Your task to perform on an android device: add a contact in the contacts app Image 0: 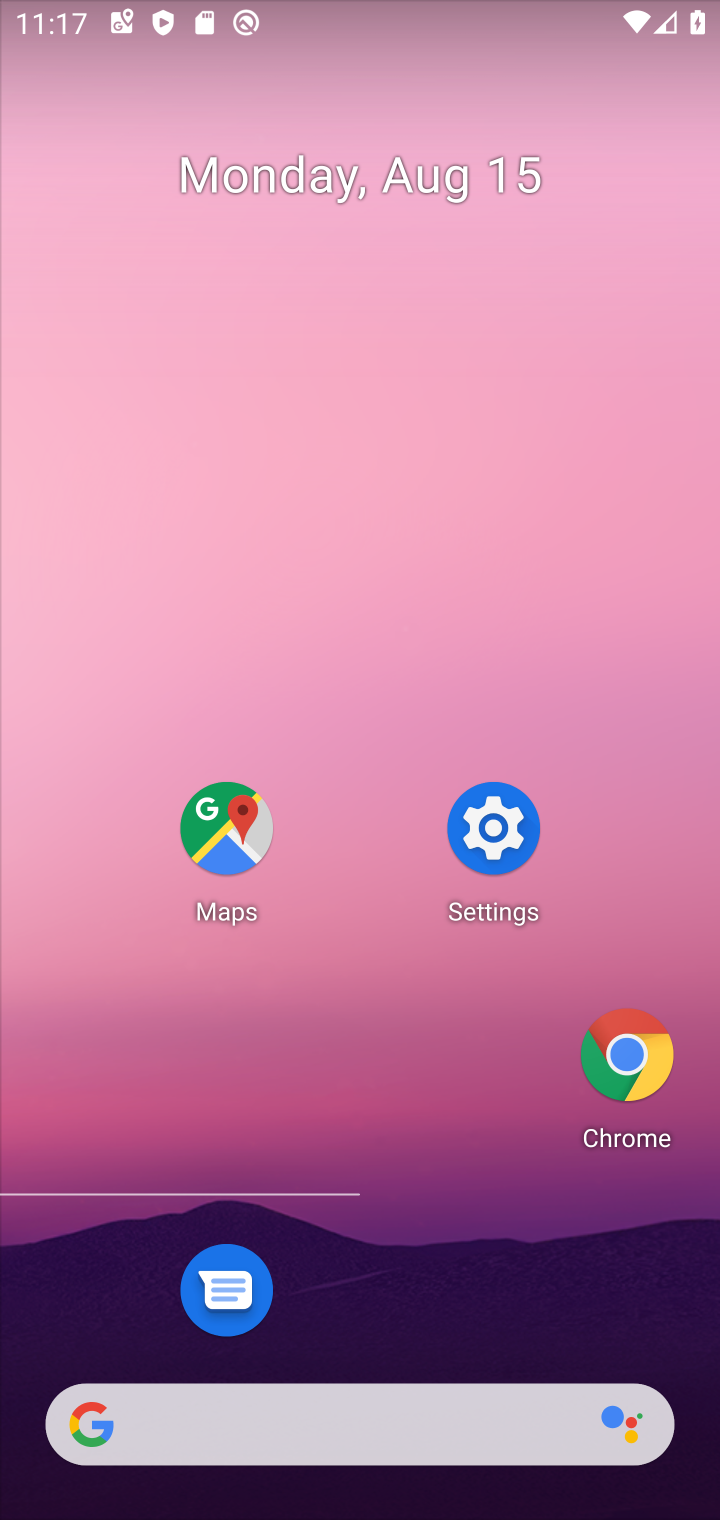
Step 0: drag from (365, 1398) to (467, 286)
Your task to perform on an android device: add a contact in the contacts app Image 1: 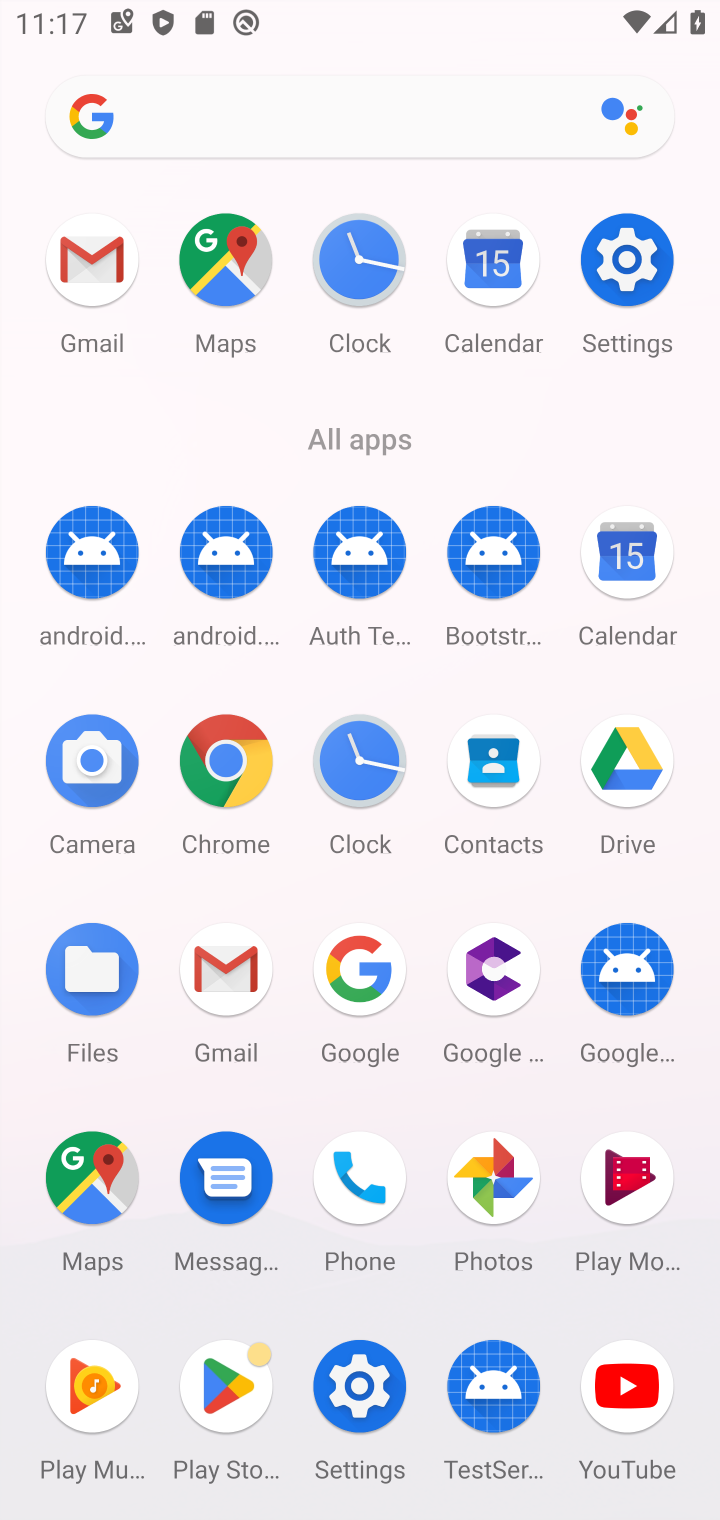
Step 1: click (487, 779)
Your task to perform on an android device: add a contact in the contacts app Image 2: 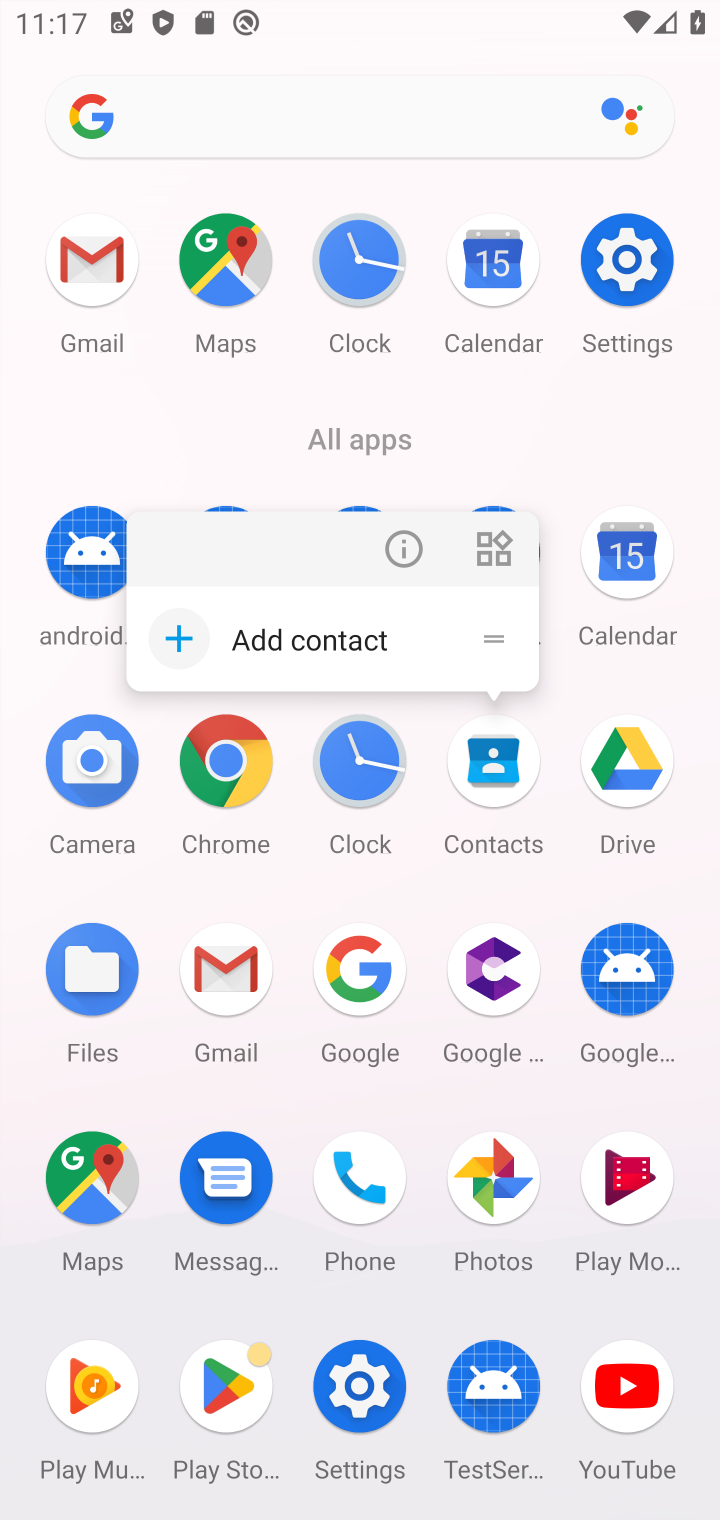
Step 2: click (487, 784)
Your task to perform on an android device: add a contact in the contacts app Image 3: 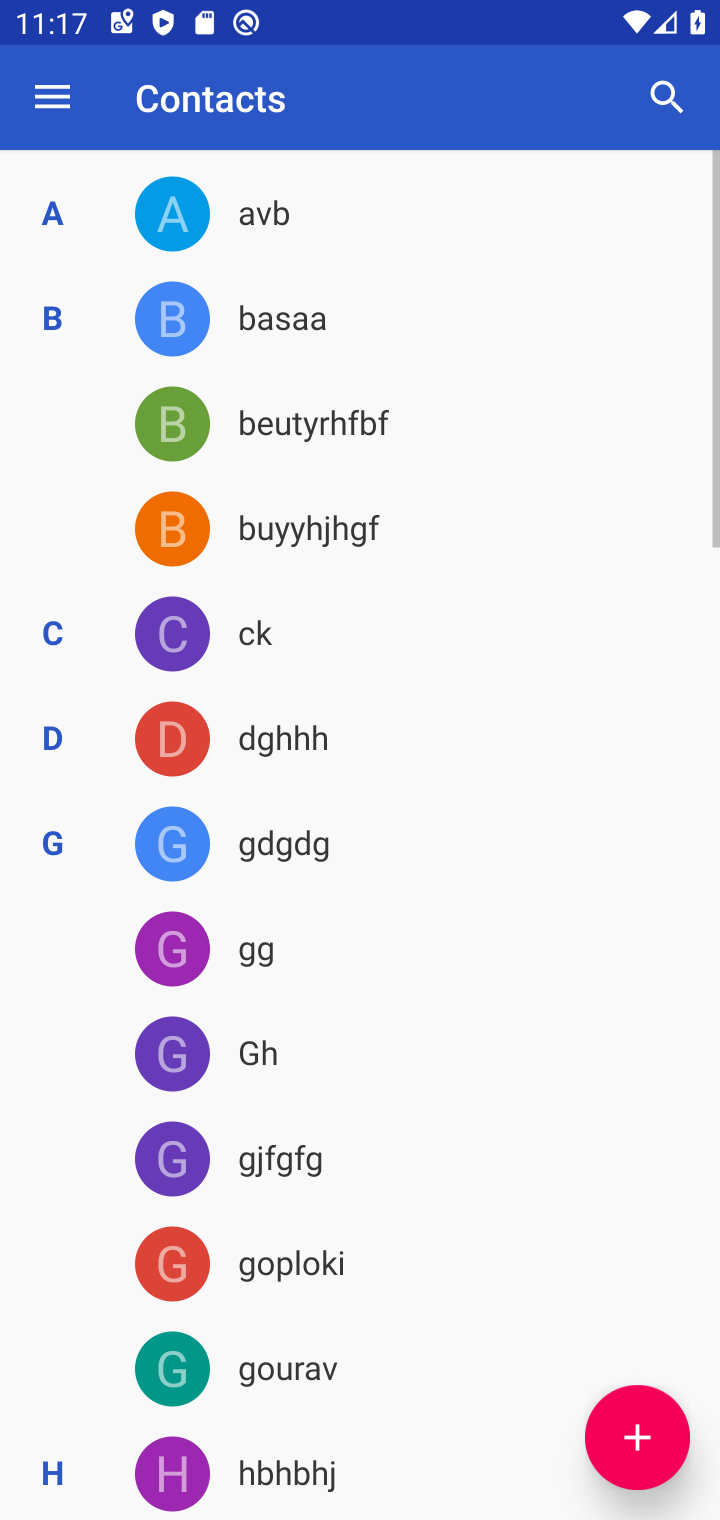
Step 3: click (651, 1420)
Your task to perform on an android device: add a contact in the contacts app Image 4: 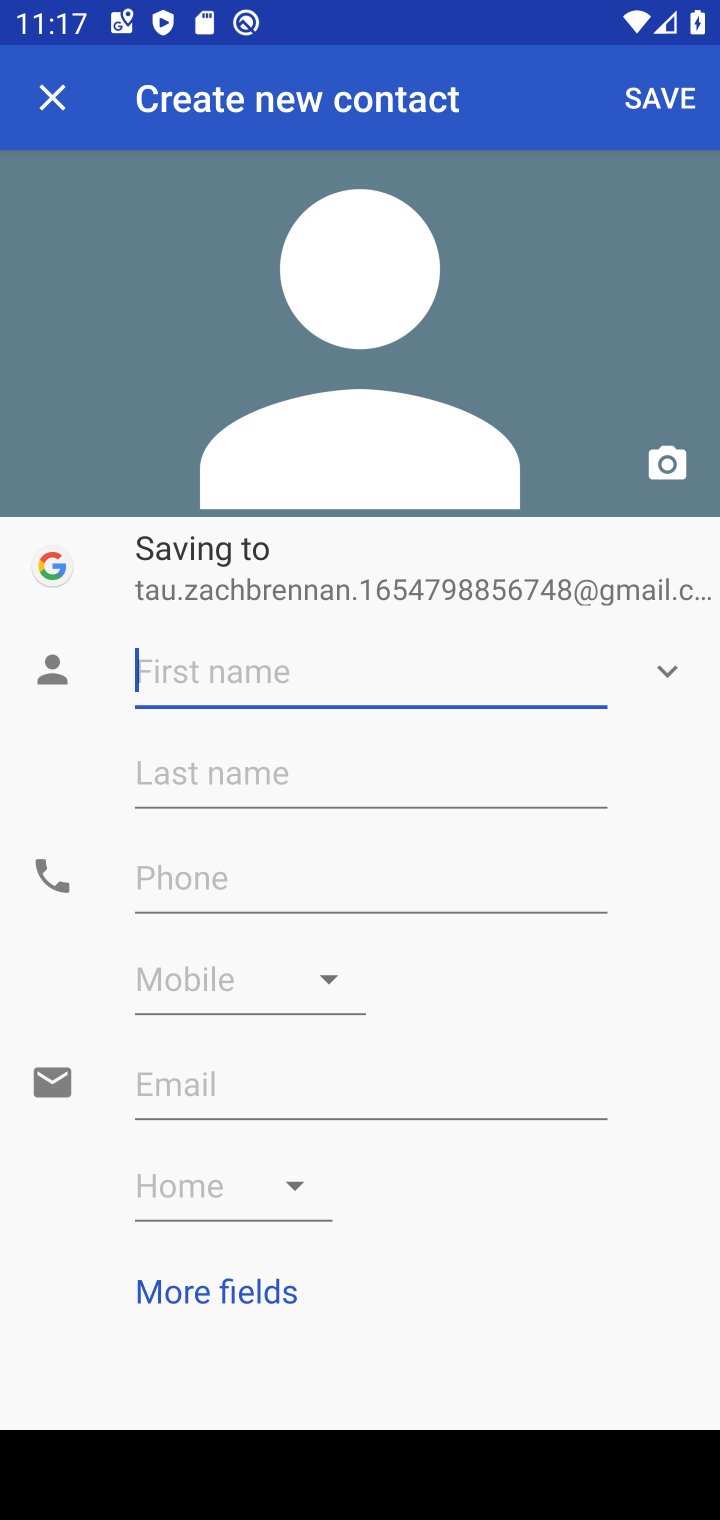
Step 4: type "wsggtyhjj"
Your task to perform on an android device: add a contact in the contacts app Image 5: 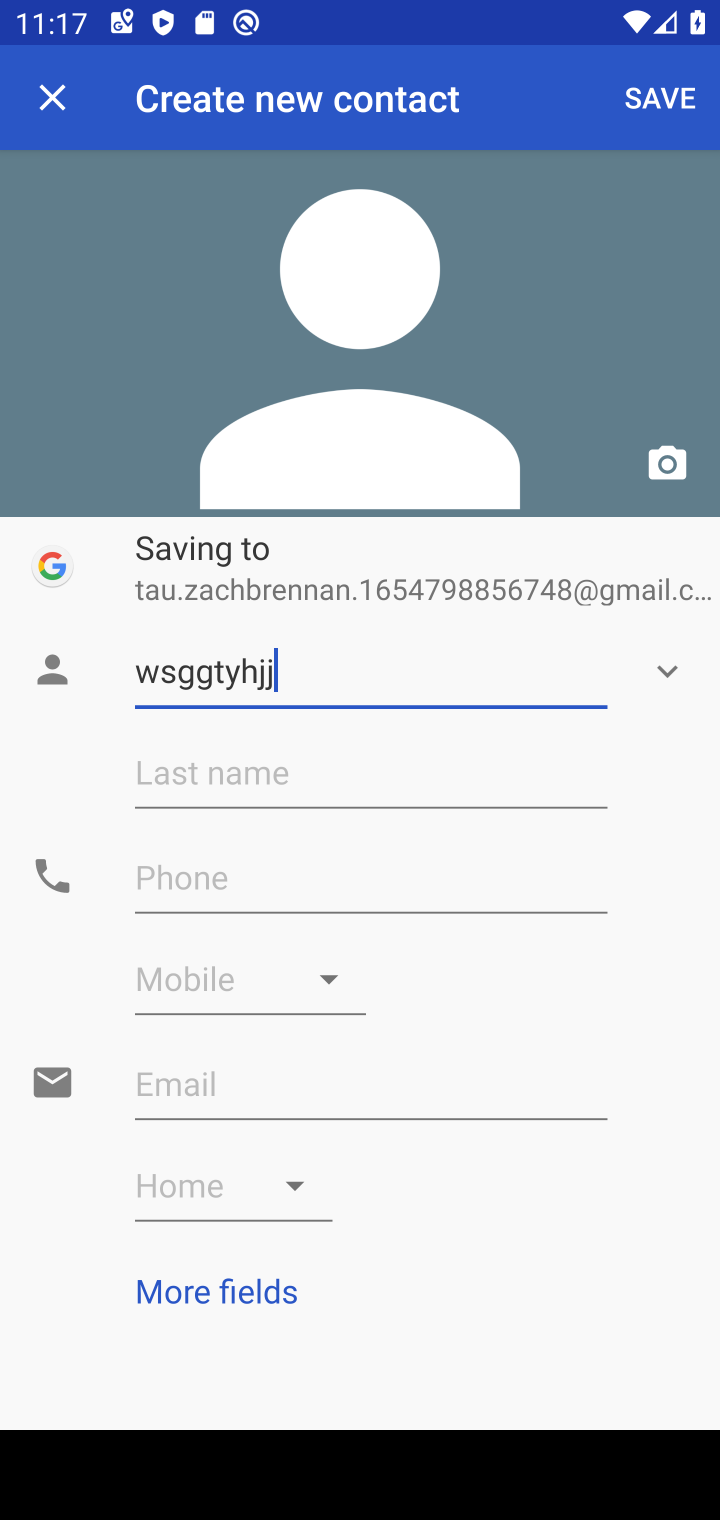
Step 5: click (248, 853)
Your task to perform on an android device: add a contact in the contacts app Image 6: 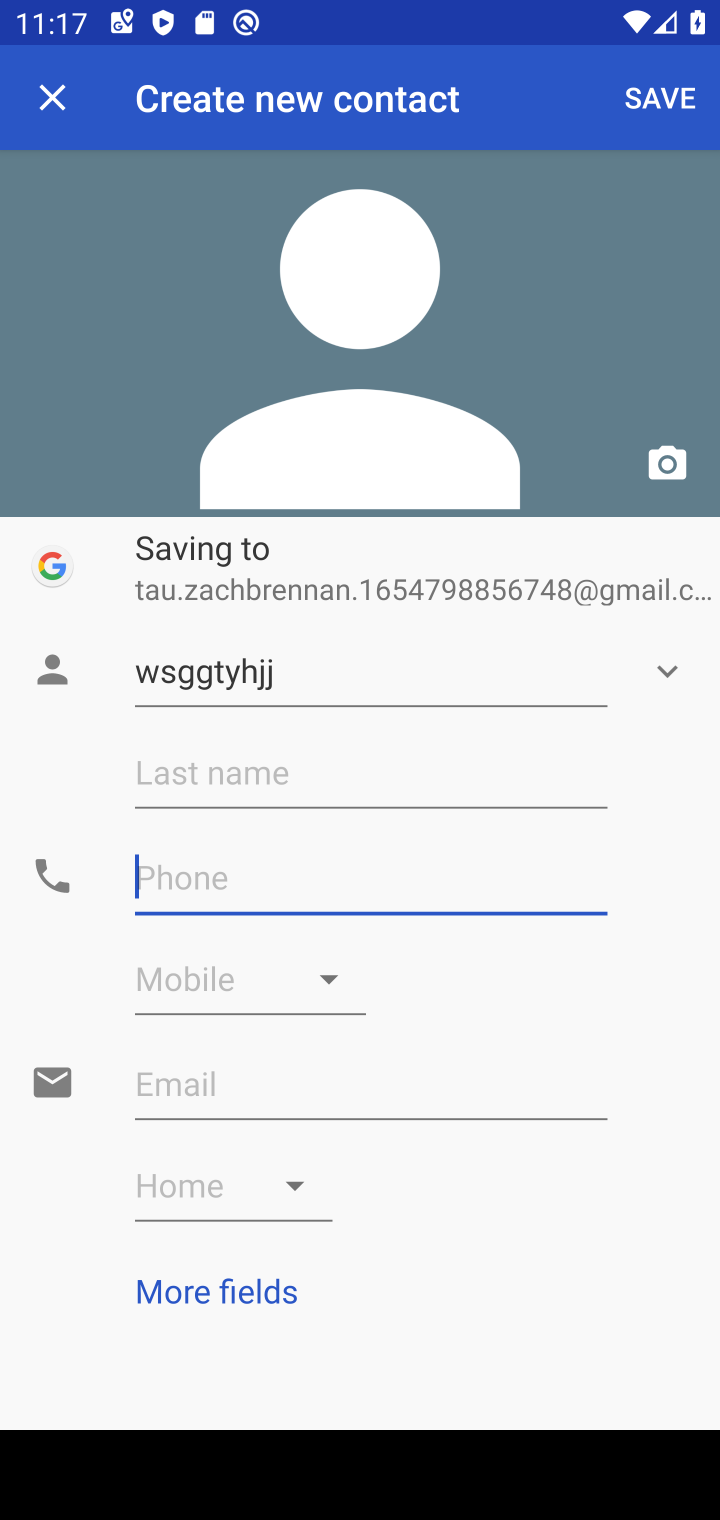
Step 6: type "6387655"
Your task to perform on an android device: add a contact in the contacts app Image 7: 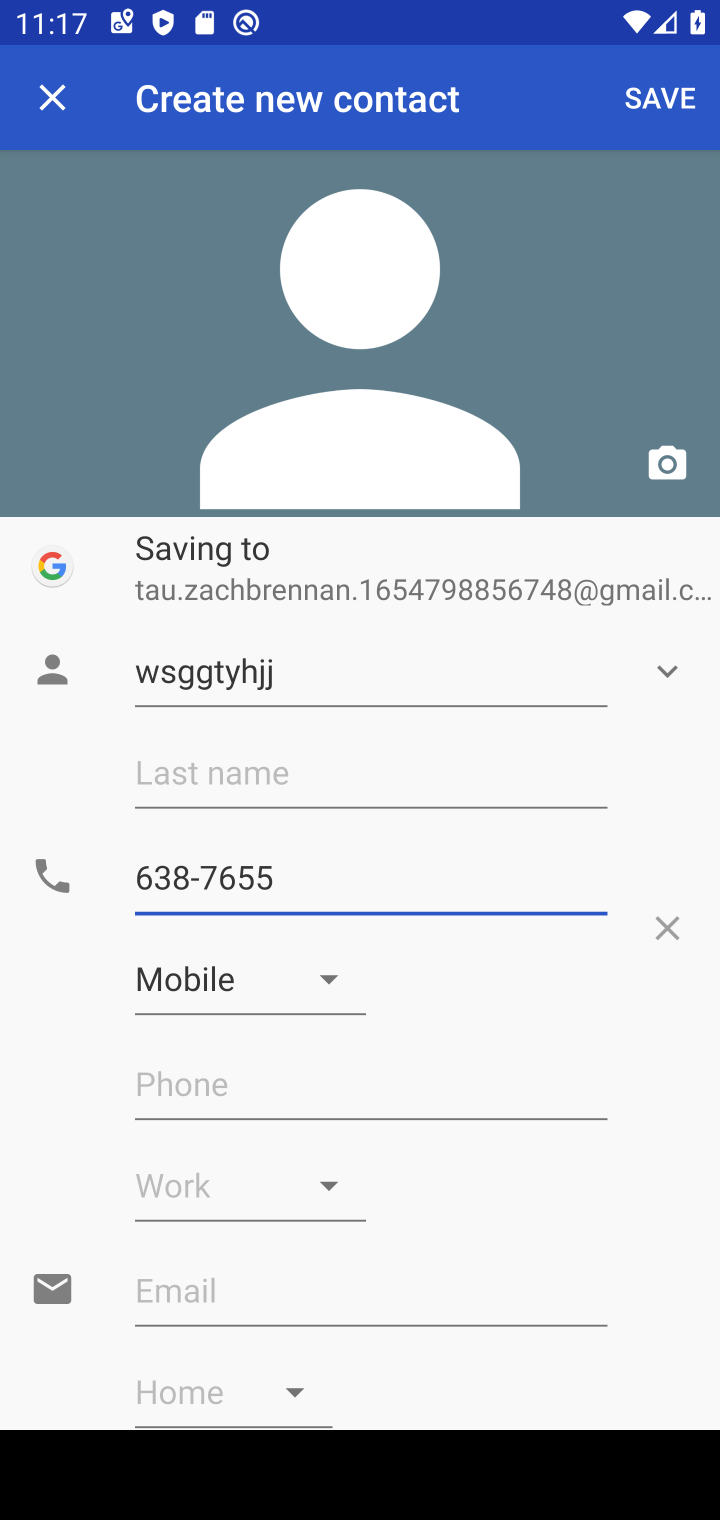
Step 7: click (664, 96)
Your task to perform on an android device: add a contact in the contacts app Image 8: 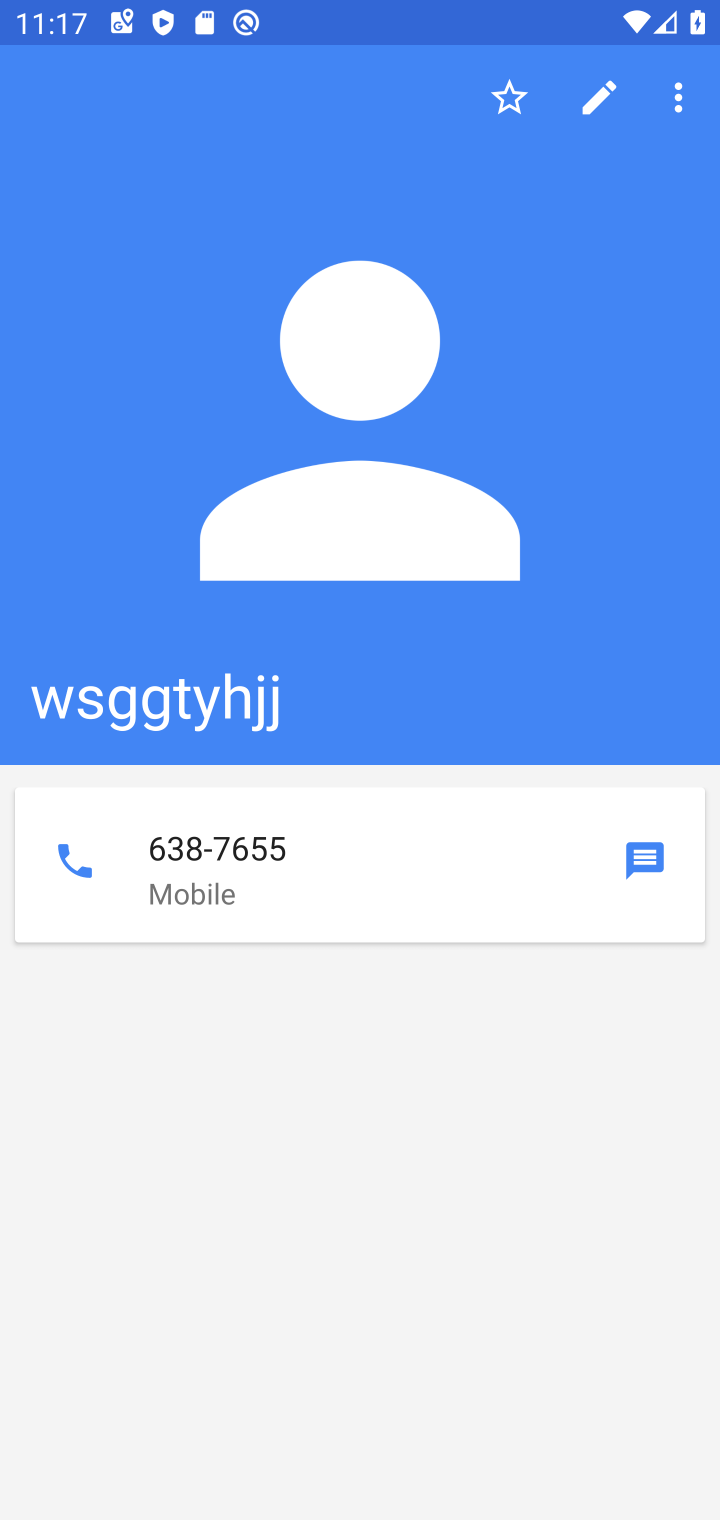
Step 8: task complete